Your task to perform on an android device: toggle priority inbox in the gmail app Image 0: 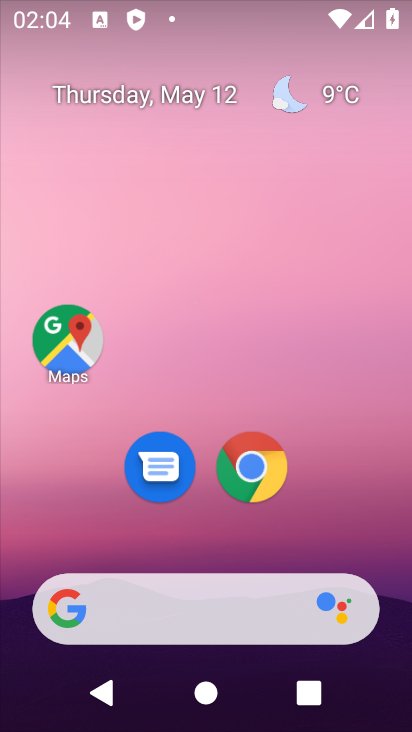
Step 0: drag from (340, 440) to (336, 181)
Your task to perform on an android device: toggle priority inbox in the gmail app Image 1: 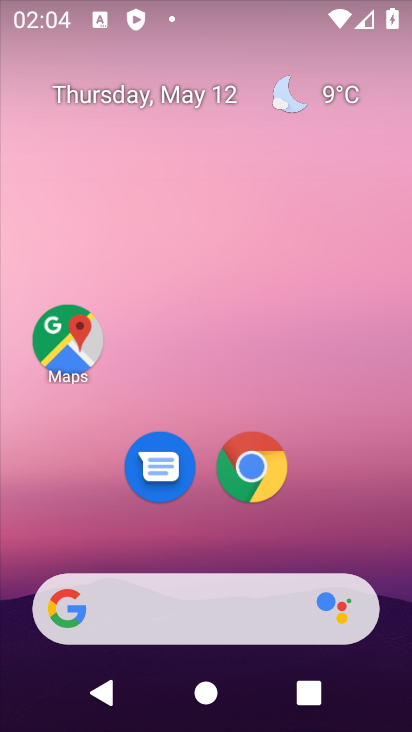
Step 1: drag from (334, 528) to (320, 201)
Your task to perform on an android device: toggle priority inbox in the gmail app Image 2: 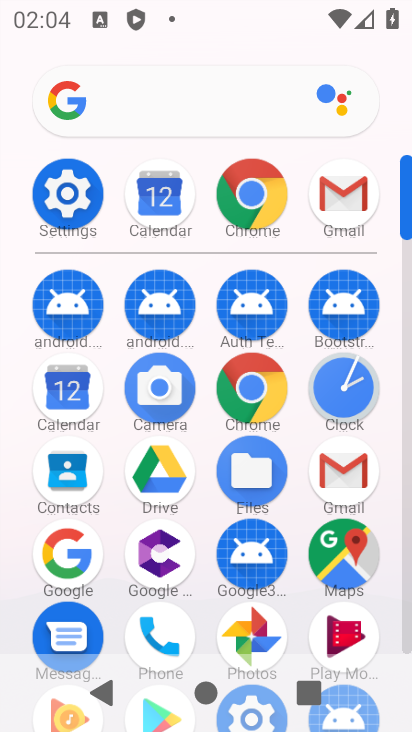
Step 2: click (342, 187)
Your task to perform on an android device: toggle priority inbox in the gmail app Image 3: 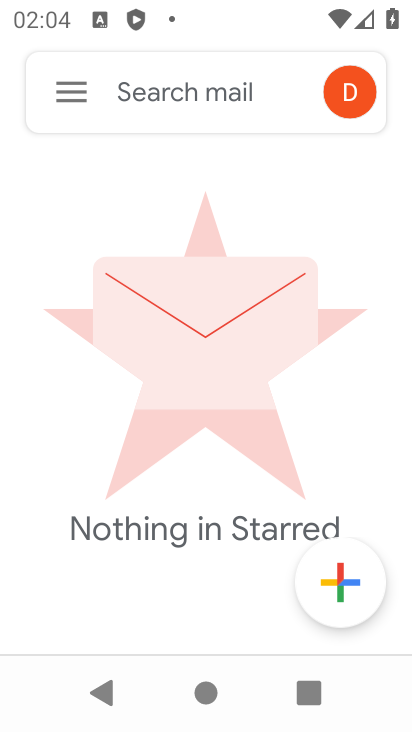
Step 3: click (59, 84)
Your task to perform on an android device: toggle priority inbox in the gmail app Image 4: 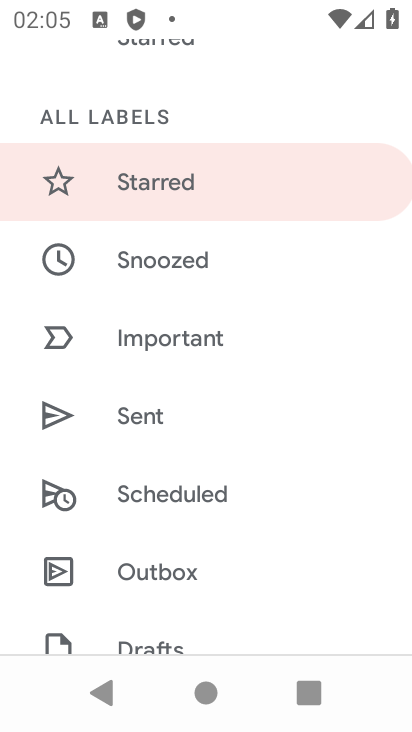
Step 4: drag from (155, 517) to (148, 294)
Your task to perform on an android device: toggle priority inbox in the gmail app Image 5: 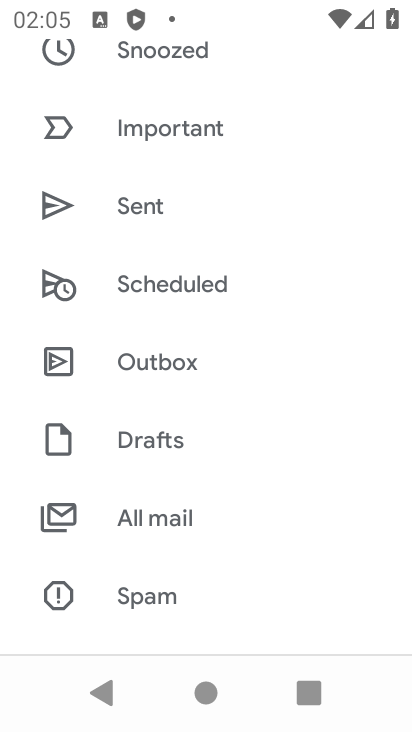
Step 5: drag from (180, 625) to (233, 213)
Your task to perform on an android device: toggle priority inbox in the gmail app Image 6: 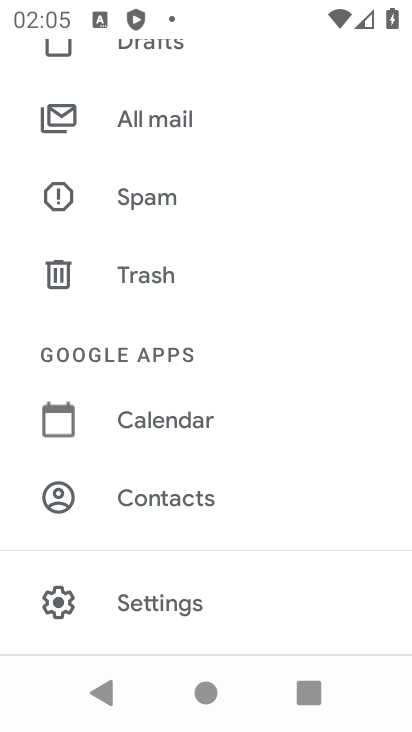
Step 6: click (181, 608)
Your task to perform on an android device: toggle priority inbox in the gmail app Image 7: 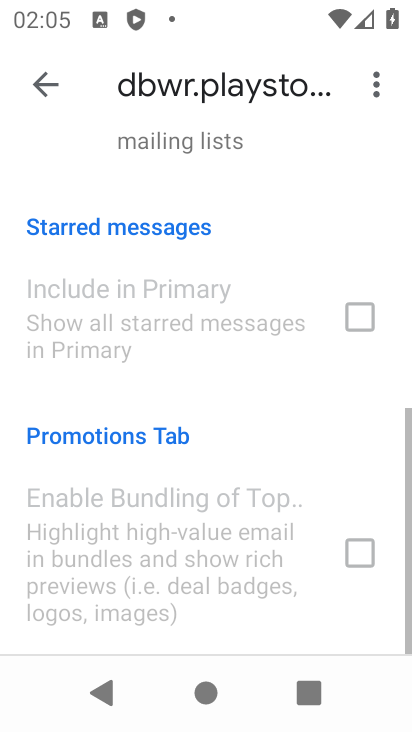
Step 7: drag from (172, 568) to (230, 156)
Your task to perform on an android device: toggle priority inbox in the gmail app Image 8: 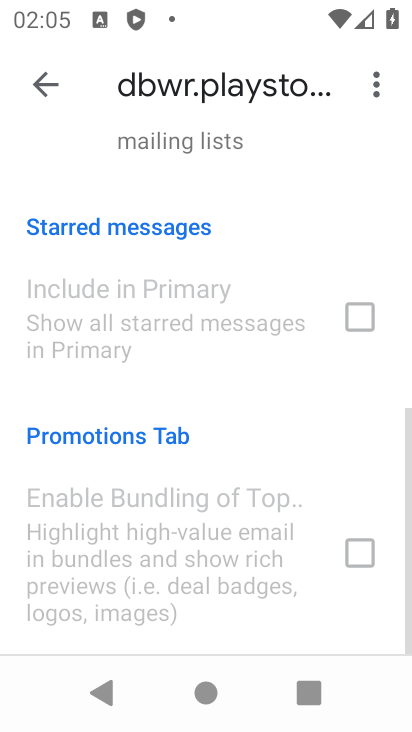
Step 8: drag from (96, 140) to (102, 584)
Your task to perform on an android device: toggle priority inbox in the gmail app Image 9: 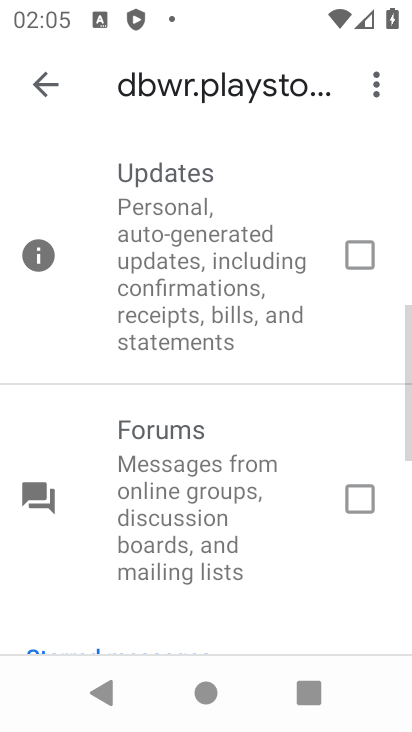
Step 9: drag from (174, 180) to (181, 618)
Your task to perform on an android device: toggle priority inbox in the gmail app Image 10: 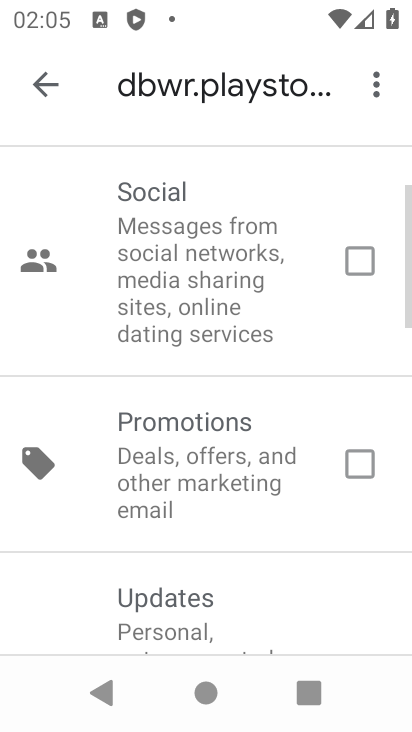
Step 10: drag from (177, 181) to (171, 652)
Your task to perform on an android device: toggle priority inbox in the gmail app Image 11: 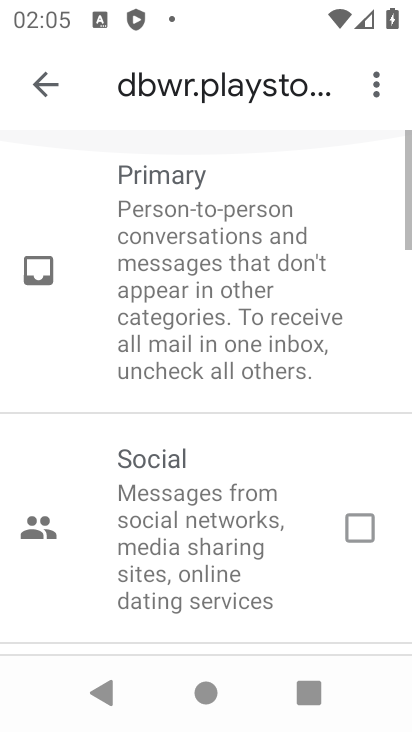
Step 11: drag from (124, 174) to (143, 648)
Your task to perform on an android device: toggle priority inbox in the gmail app Image 12: 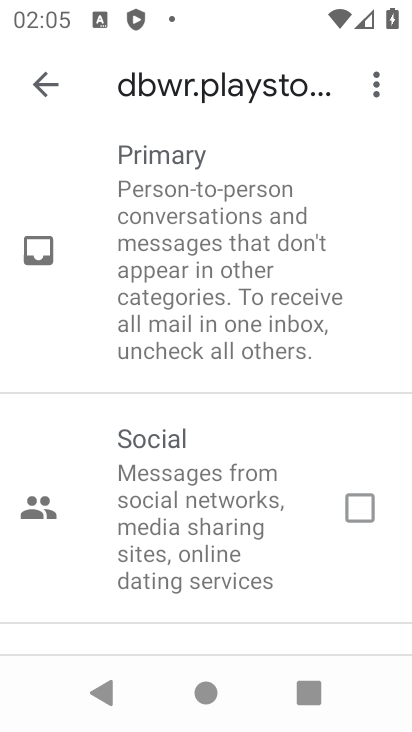
Step 12: click (34, 53)
Your task to perform on an android device: toggle priority inbox in the gmail app Image 13: 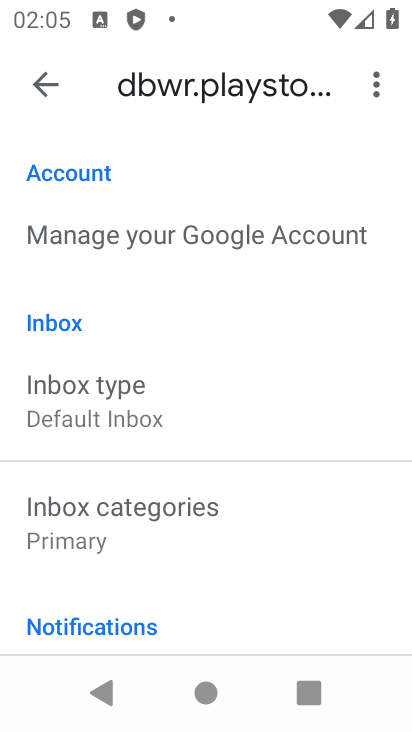
Step 13: click (115, 414)
Your task to perform on an android device: toggle priority inbox in the gmail app Image 14: 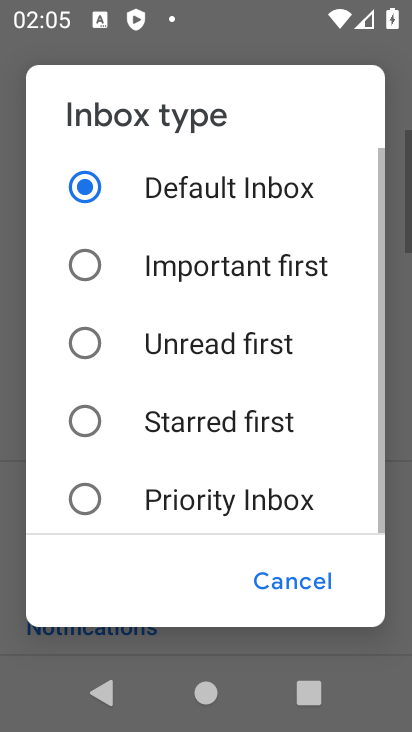
Step 14: click (170, 500)
Your task to perform on an android device: toggle priority inbox in the gmail app Image 15: 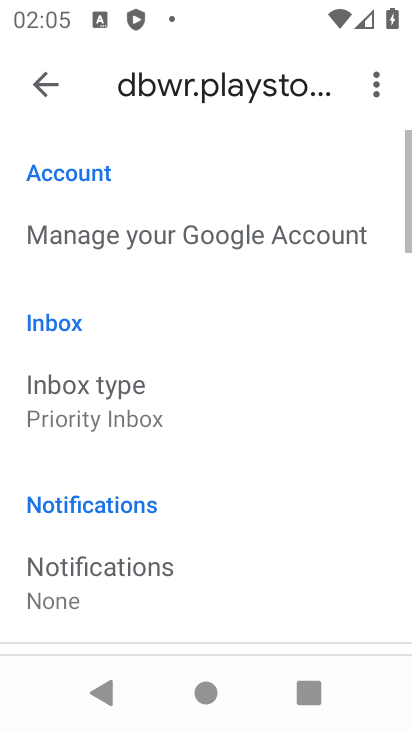
Step 15: task complete